Your task to perform on an android device: turn pop-ups off in chrome Image 0: 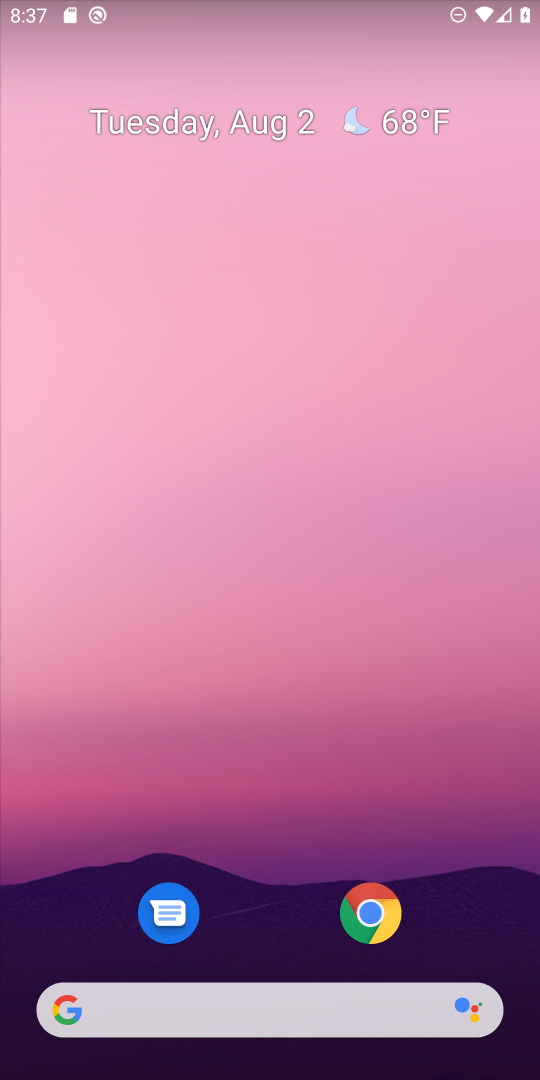
Step 0: click (379, 917)
Your task to perform on an android device: turn pop-ups off in chrome Image 1: 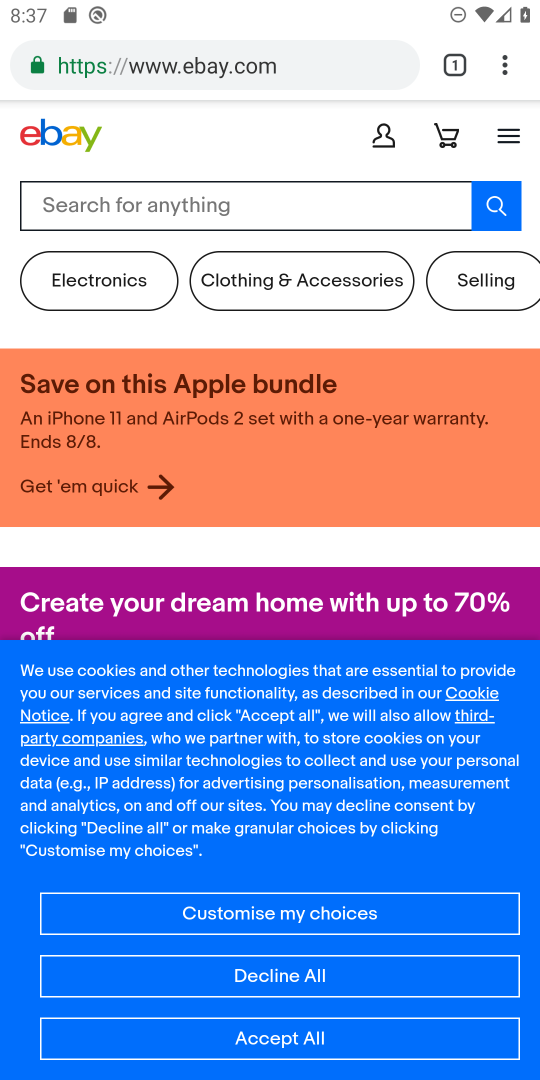
Step 1: click (505, 65)
Your task to perform on an android device: turn pop-ups off in chrome Image 2: 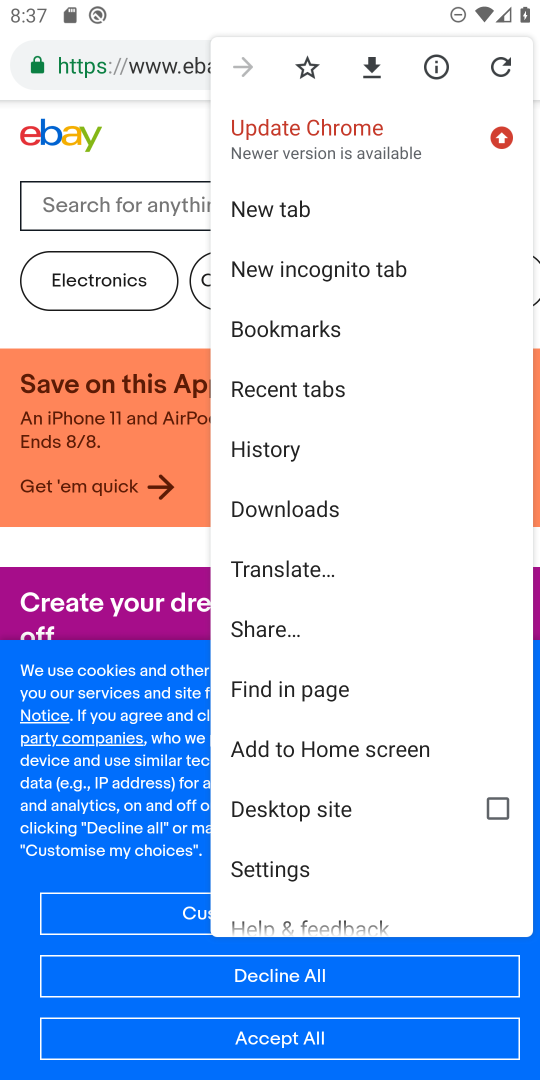
Step 2: click (269, 876)
Your task to perform on an android device: turn pop-ups off in chrome Image 3: 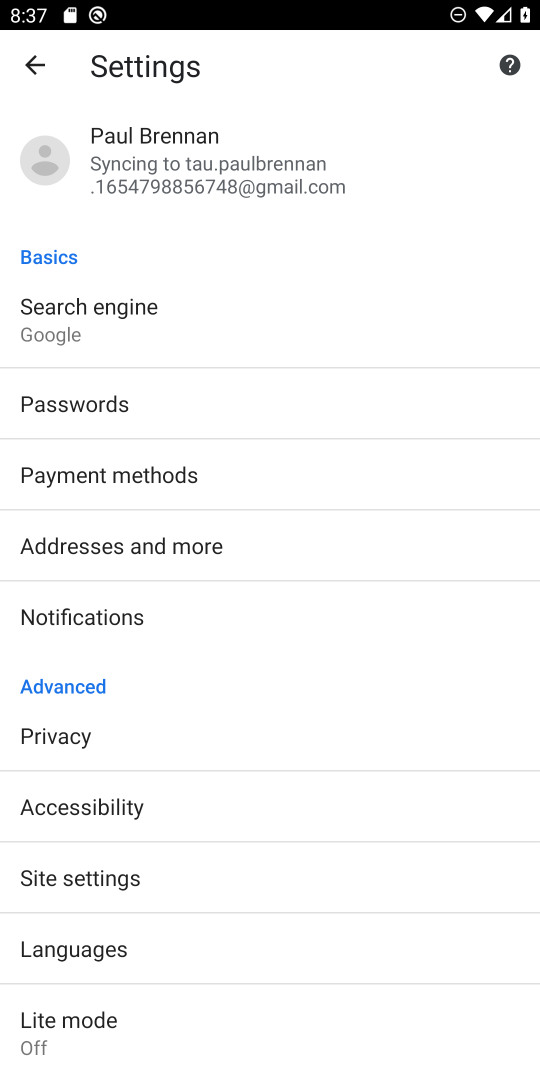
Step 3: task complete